Your task to perform on an android device: find which apps use the phone's location Image 0: 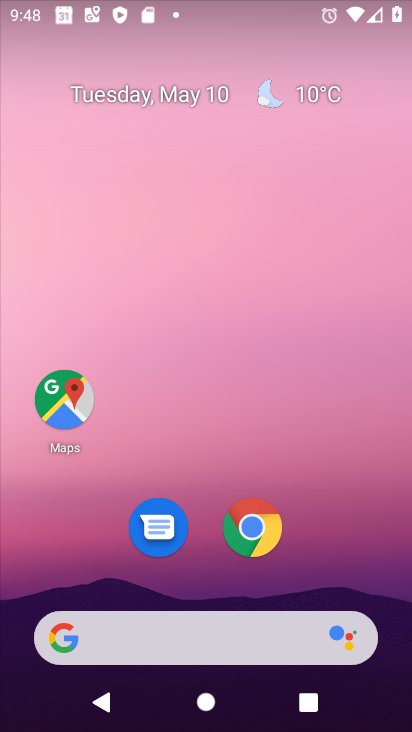
Step 0: drag from (225, 728) to (198, 87)
Your task to perform on an android device: find which apps use the phone's location Image 1: 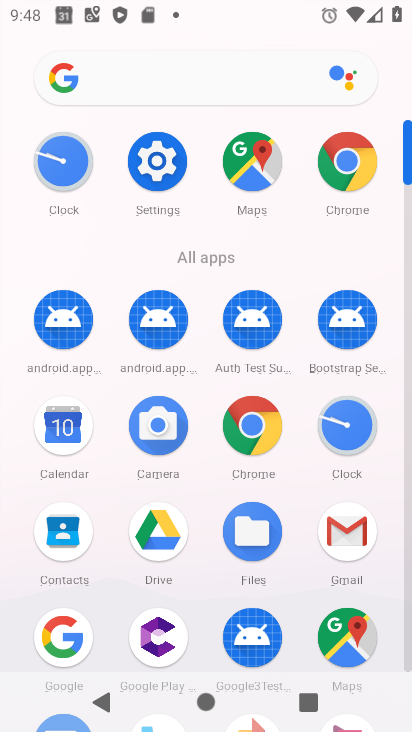
Step 1: click (166, 159)
Your task to perform on an android device: find which apps use the phone's location Image 2: 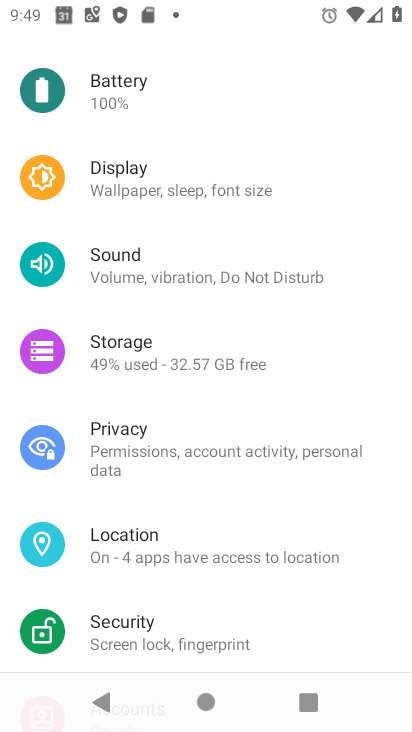
Step 2: click (141, 542)
Your task to perform on an android device: find which apps use the phone's location Image 3: 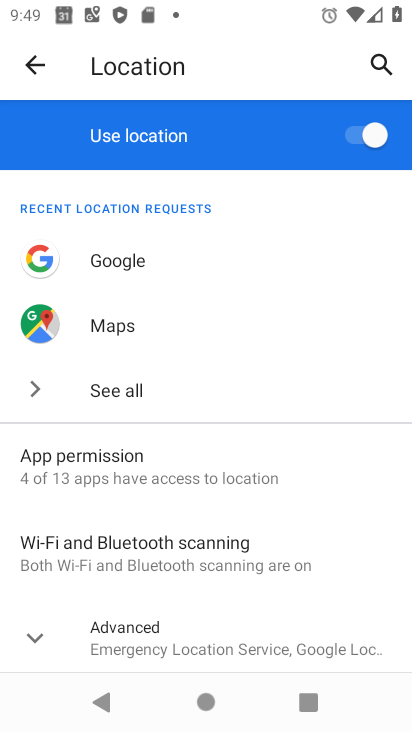
Step 3: click (87, 462)
Your task to perform on an android device: find which apps use the phone's location Image 4: 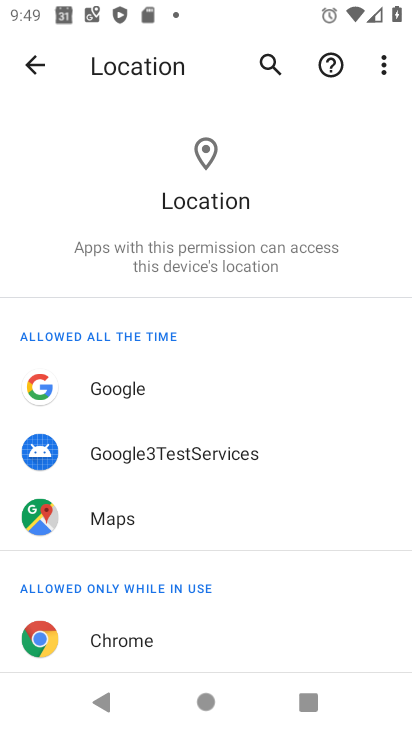
Step 4: task complete